Your task to perform on an android device: Open the calendar app, open the side menu, and click the "Day" option Image 0: 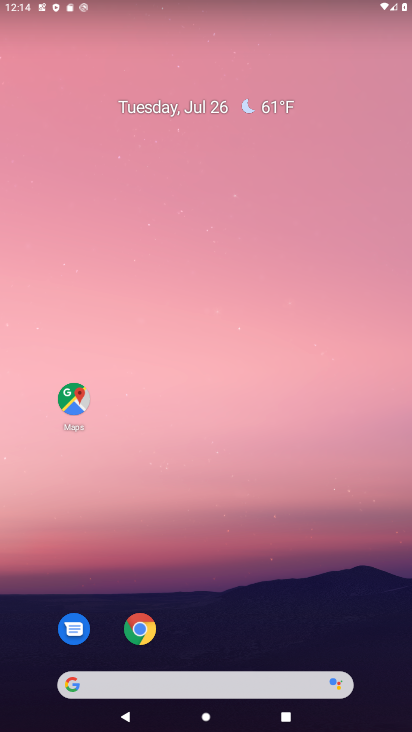
Step 0: drag from (204, 634) to (208, 131)
Your task to perform on an android device: Open the calendar app, open the side menu, and click the "Day" option Image 1: 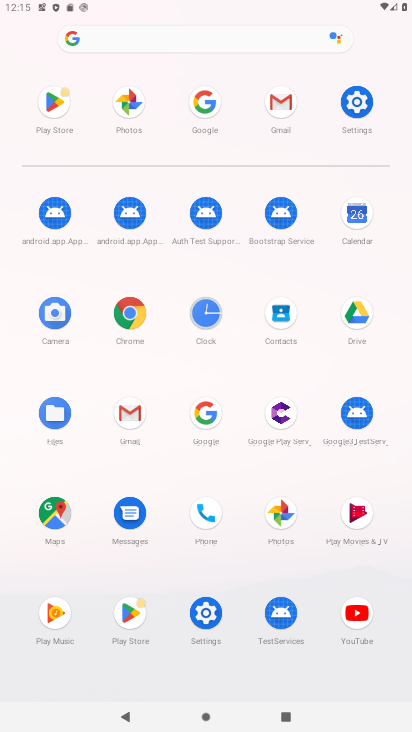
Step 1: click (368, 225)
Your task to perform on an android device: Open the calendar app, open the side menu, and click the "Day" option Image 2: 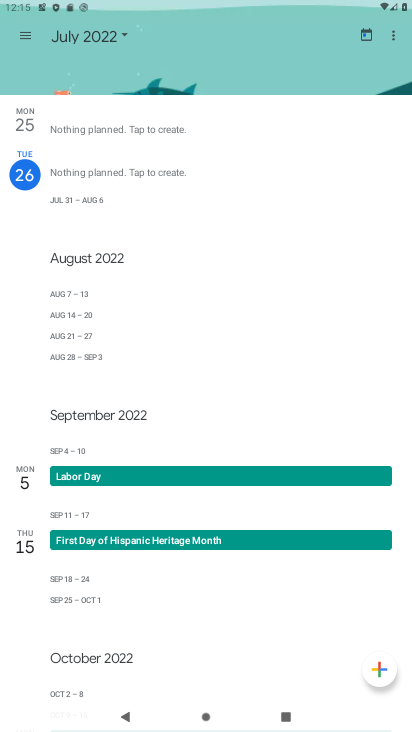
Step 2: click (26, 32)
Your task to perform on an android device: Open the calendar app, open the side menu, and click the "Day" option Image 3: 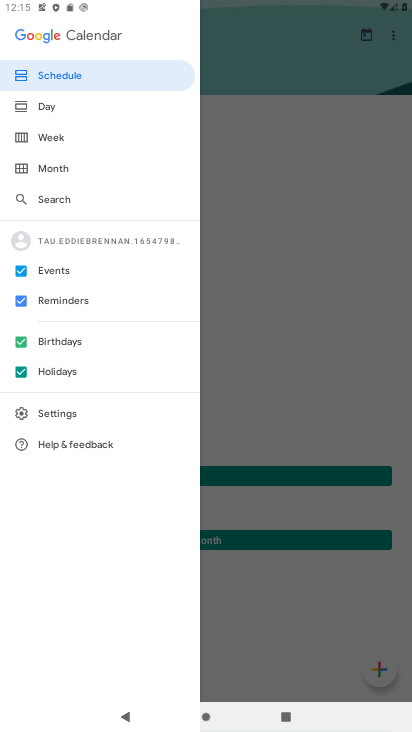
Step 3: click (60, 106)
Your task to perform on an android device: Open the calendar app, open the side menu, and click the "Day" option Image 4: 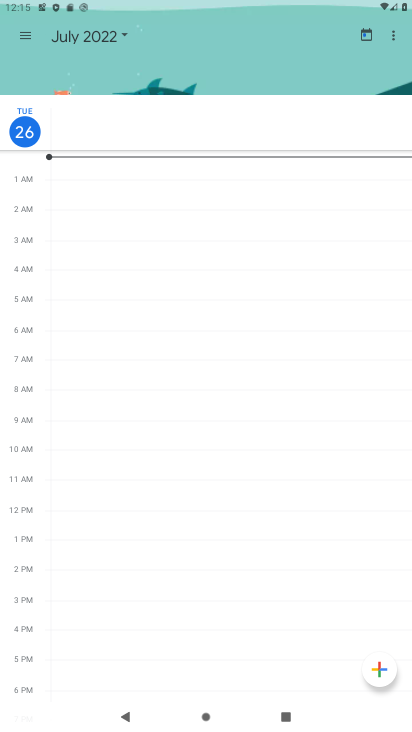
Step 4: task complete